Your task to perform on an android device: change alarm snooze length Image 0: 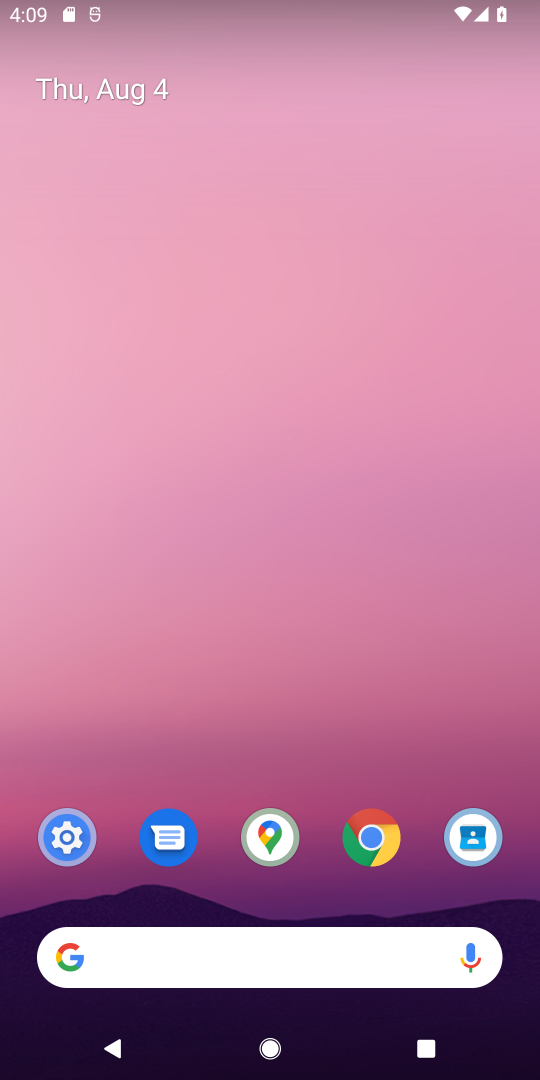
Step 0: press home button
Your task to perform on an android device: change alarm snooze length Image 1: 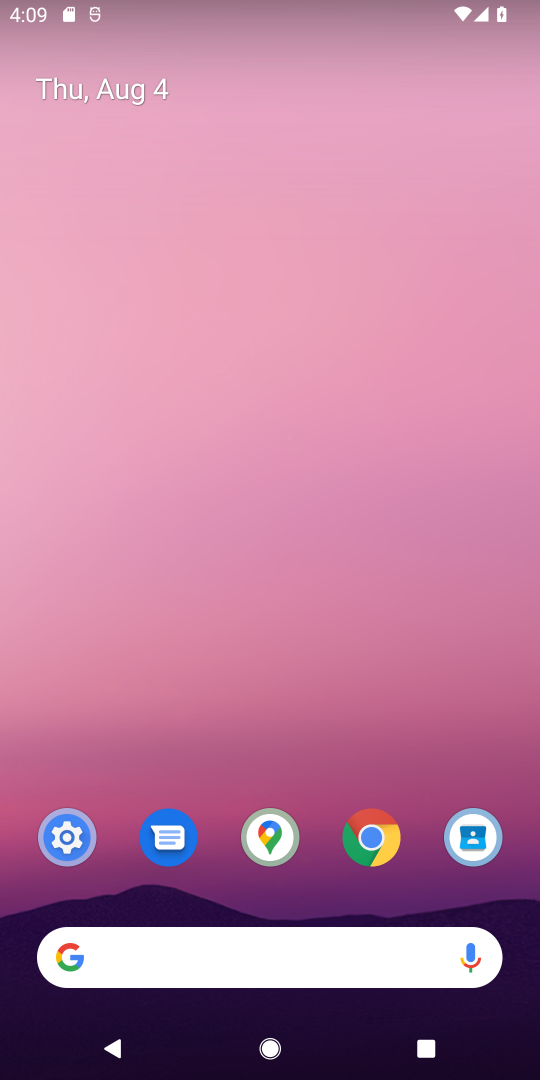
Step 1: drag from (319, 793) to (375, 0)
Your task to perform on an android device: change alarm snooze length Image 2: 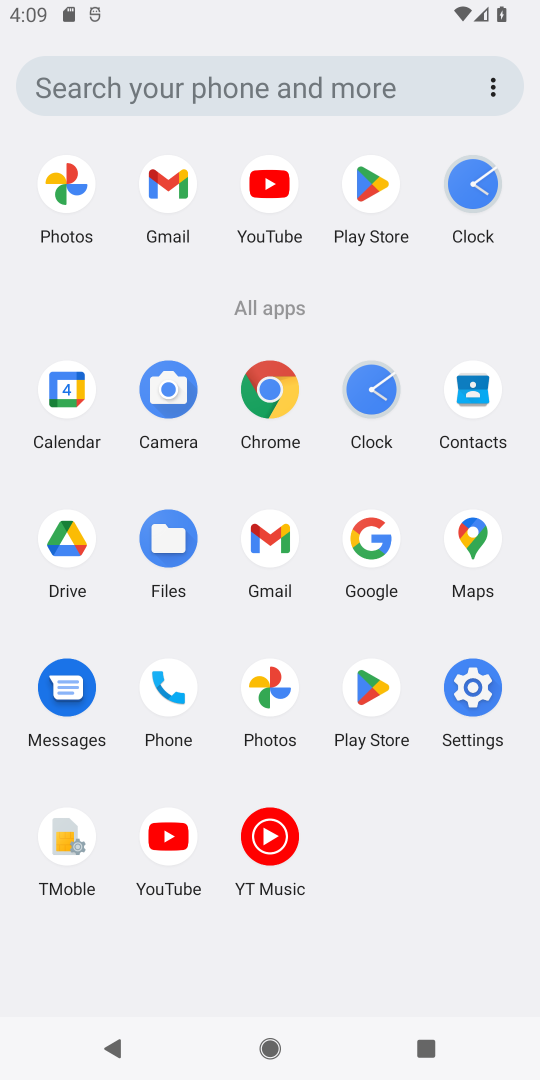
Step 2: click (374, 376)
Your task to perform on an android device: change alarm snooze length Image 3: 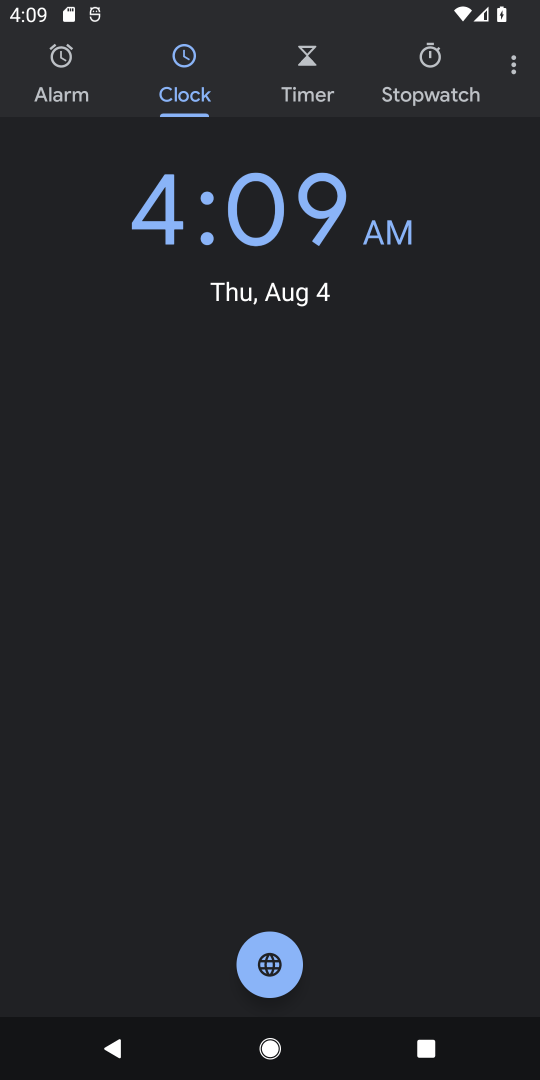
Step 3: click (511, 64)
Your task to perform on an android device: change alarm snooze length Image 4: 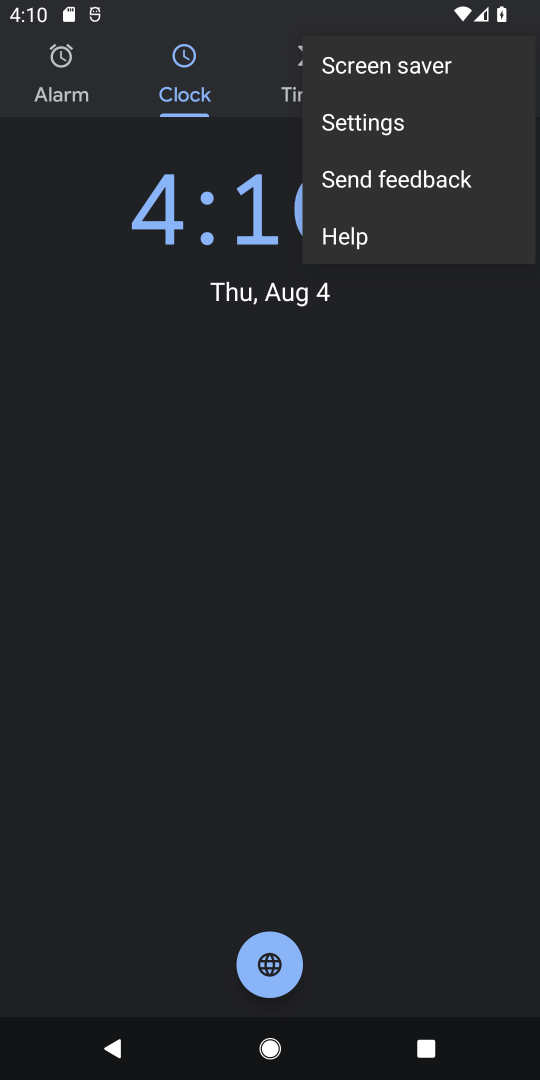
Step 4: click (418, 118)
Your task to perform on an android device: change alarm snooze length Image 5: 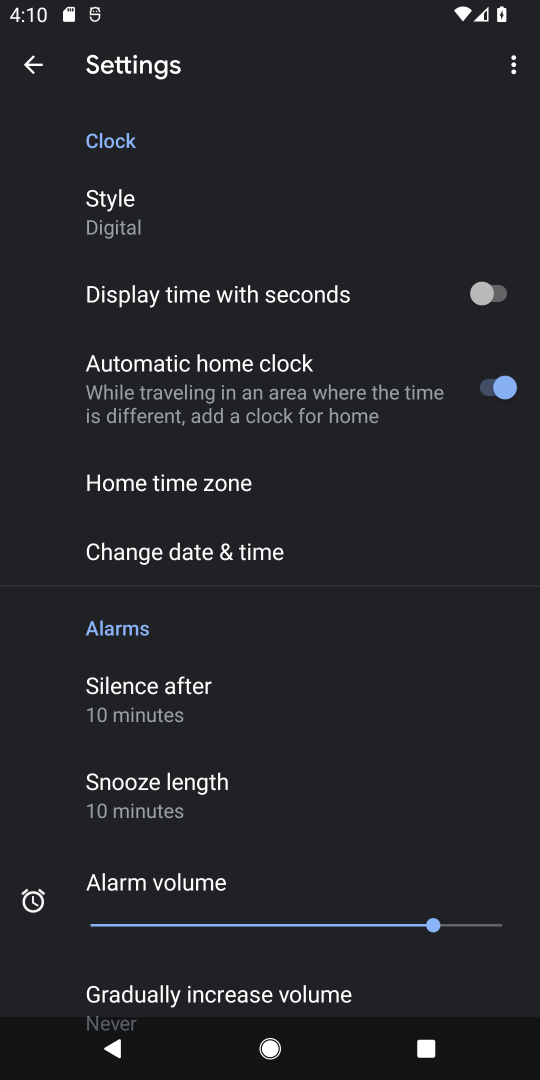
Step 5: click (231, 797)
Your task to perform on an android device: change alarm snooze length Image 6: 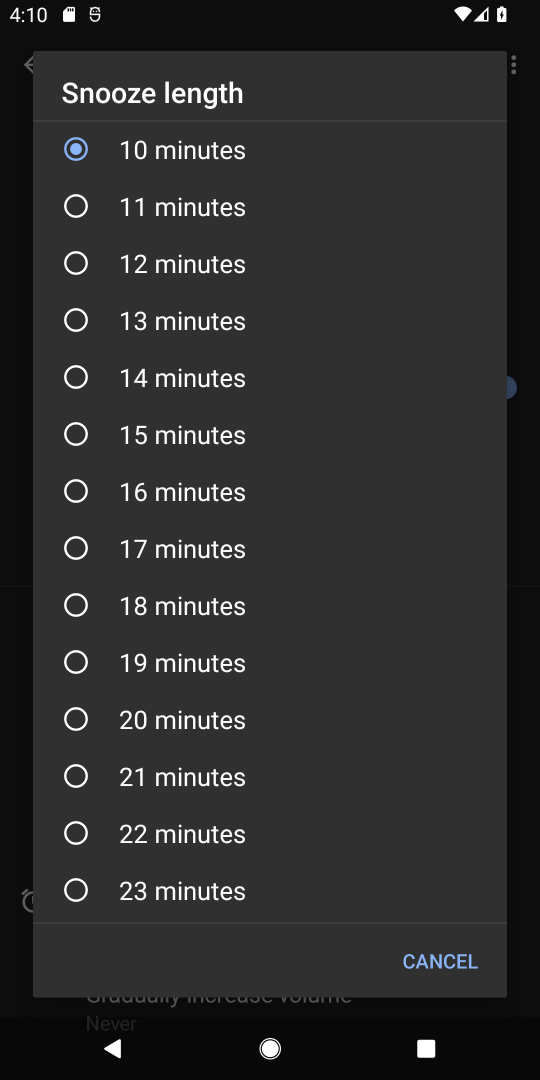
Step 6: click (81, 420)
Your task to perform on an android device: change alarm snooze length Image 7: 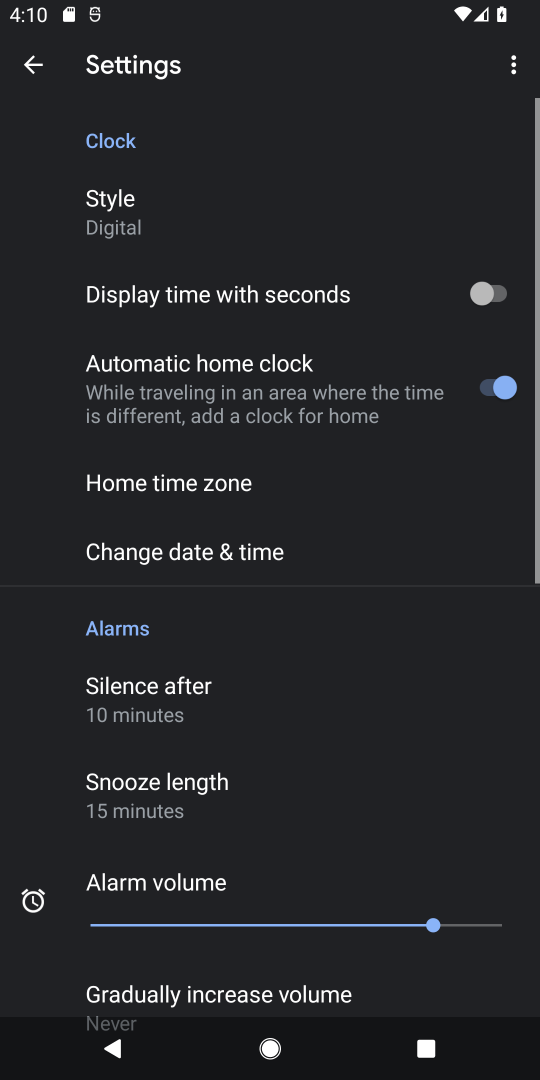
Step 7: task complete